Your task to perform on an android device: open app "Google Chat" Image 0: 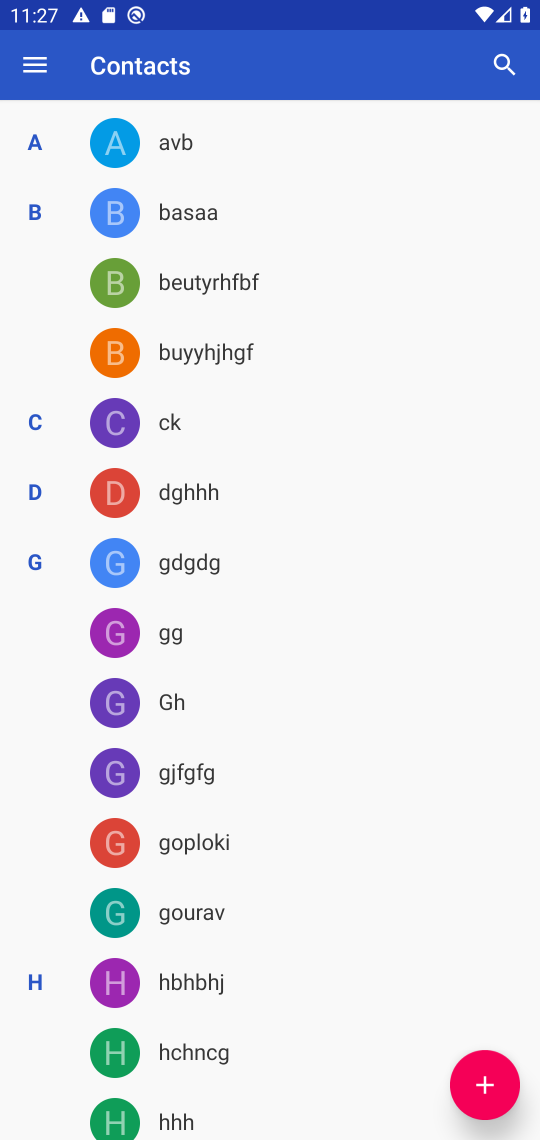
Step 0: press home button
Your task to perform on an android device: open app "Google Chat" Image 1: 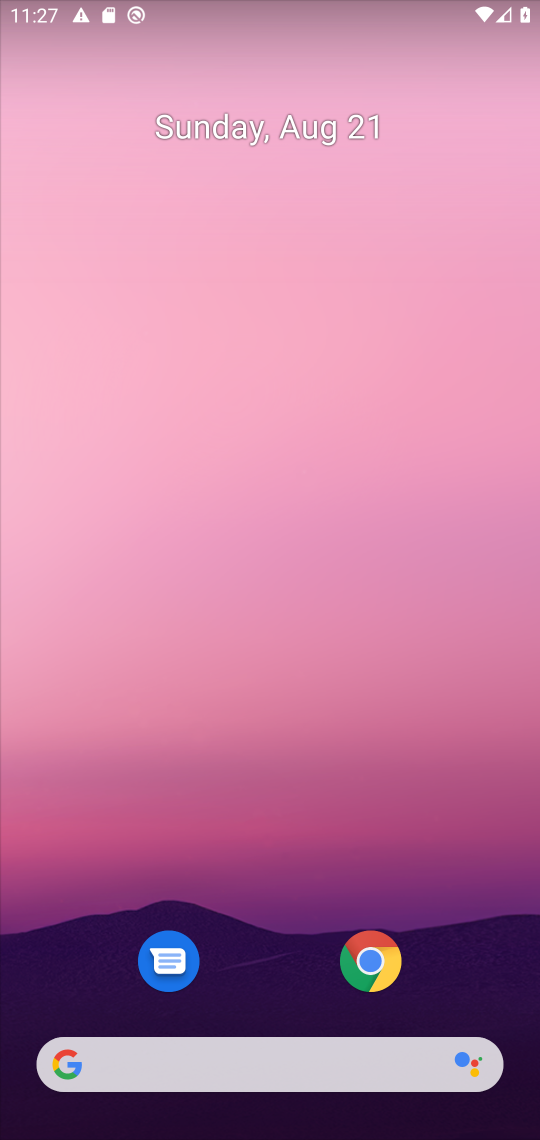
Step 1: drag from (459, 983) to (468, 147)
Your task to perform on an android device: open app "Google Chat" Image 2: 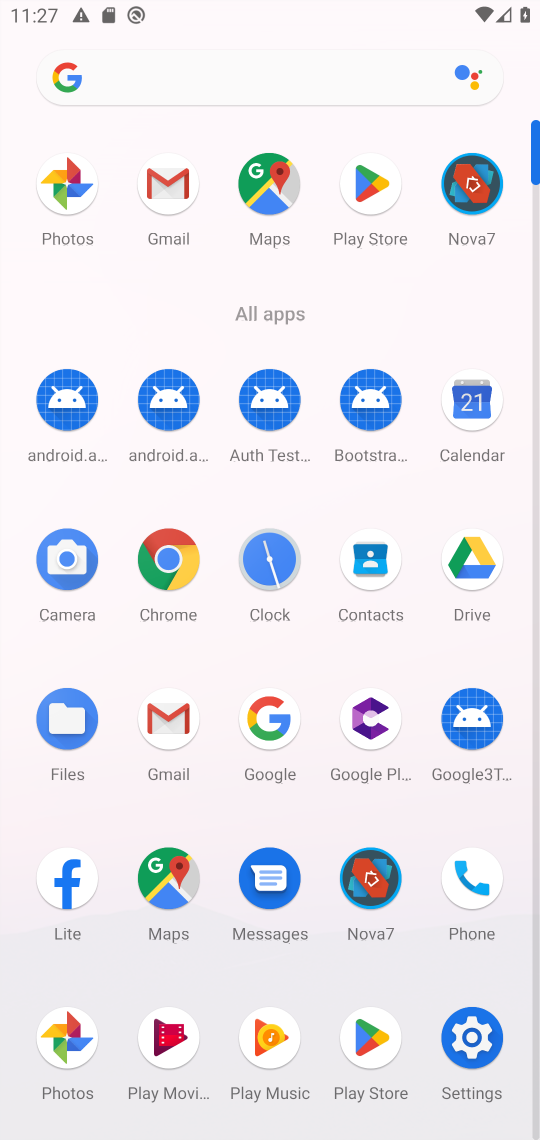
Step 2: click (380, 192)
Your task to perform on an android device: open app "Google Chat" Image 3: 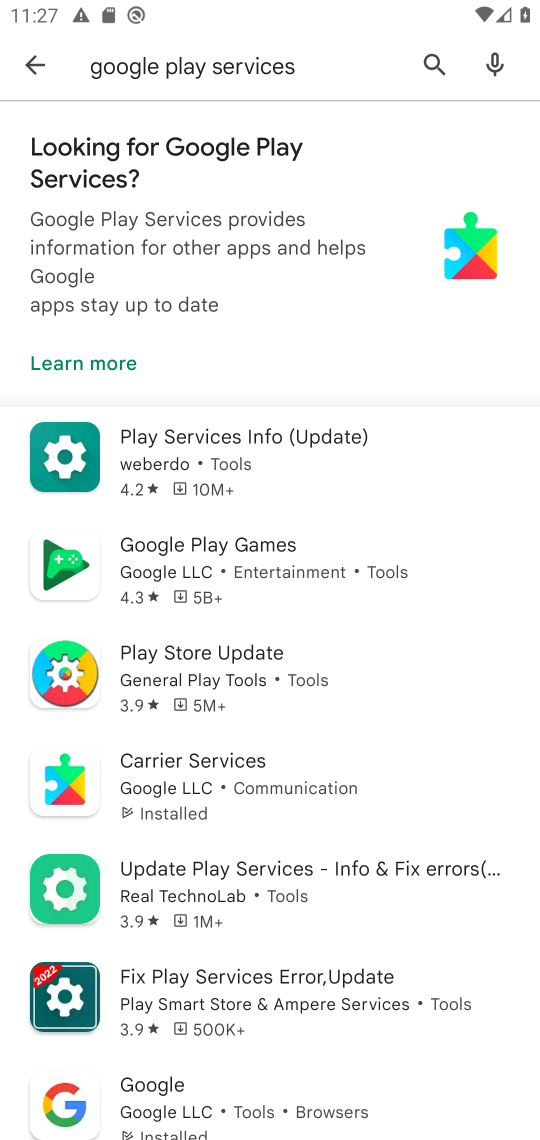
Step 3: press back button
Your task to perform on an android device: open app "Google Chat" Image 4: 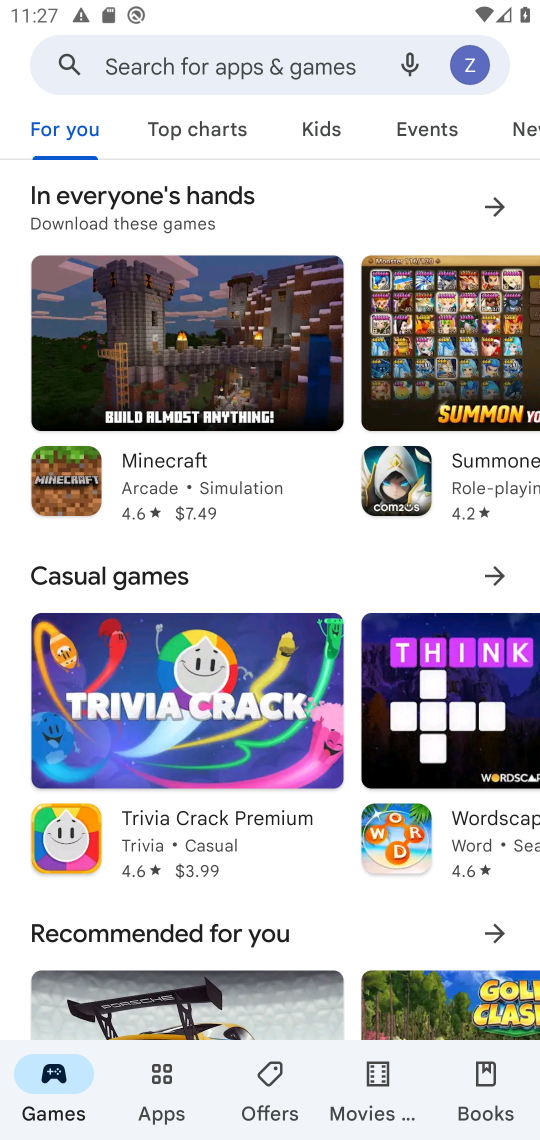
Step 4: click (324, 69)
Your task to perform on an android device: open app "Google Chat" Image 5: 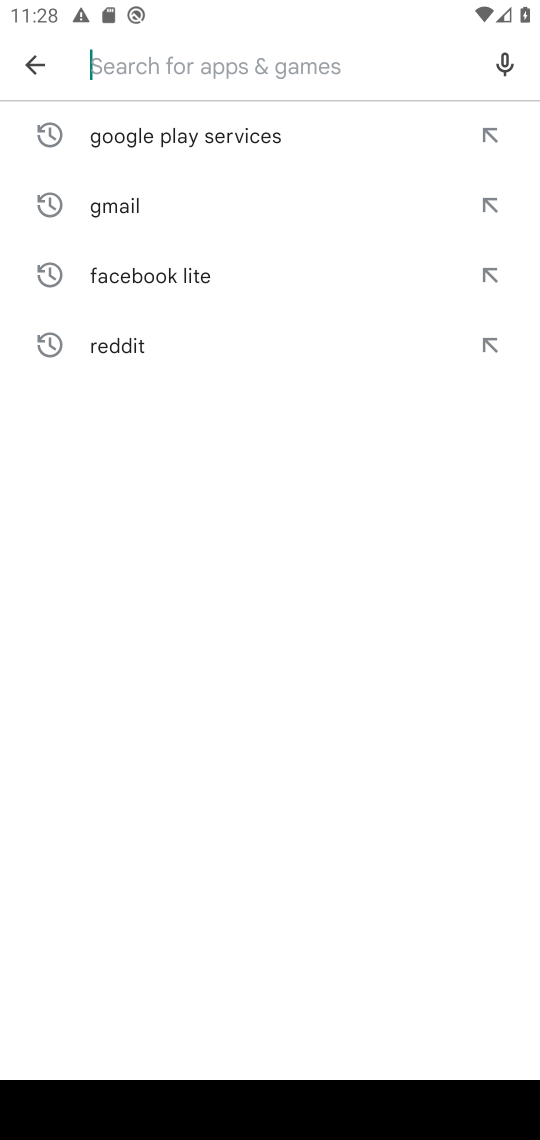
Step 5: type "google chat"
Your task to perform on an android device: open app "Google Chat" Image 6: 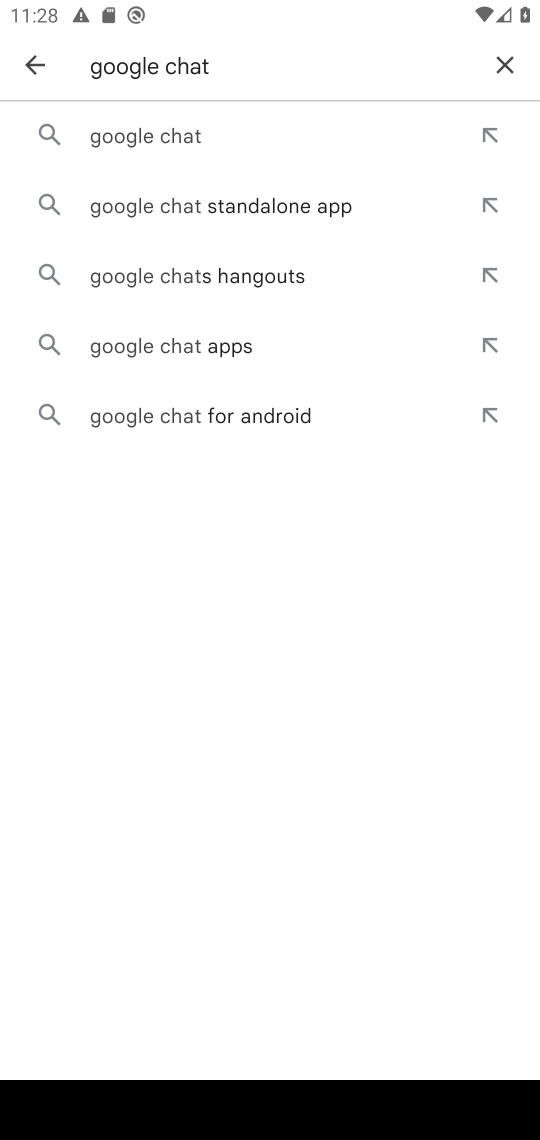
Step 6: click (211, 130)
Your task to perform on an android device: open app "Google Chat" Image 7: 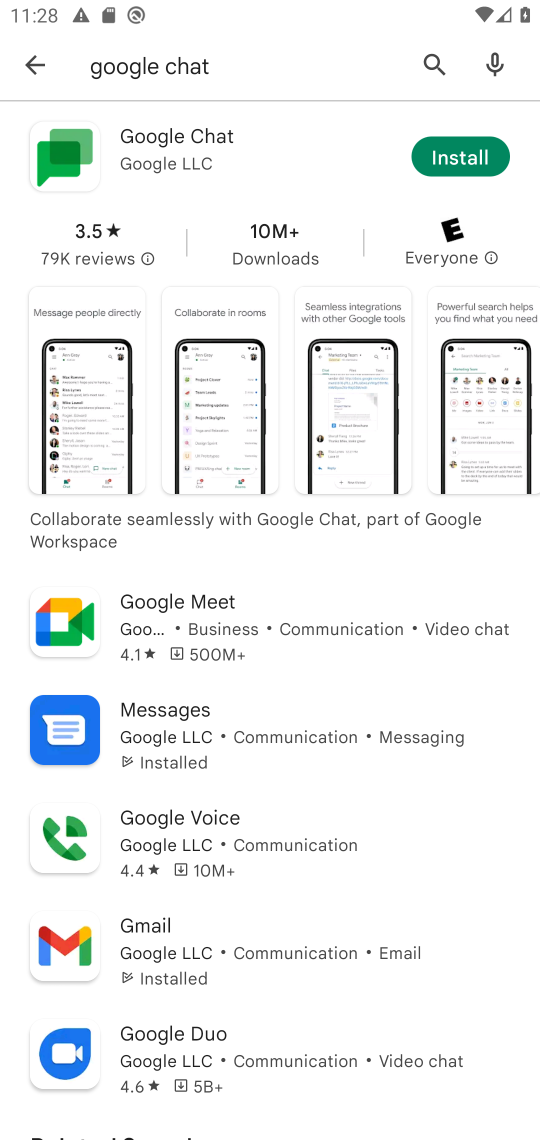
Step 7: task complete